Your task to perform on an android device: open wifi settings Image 0: 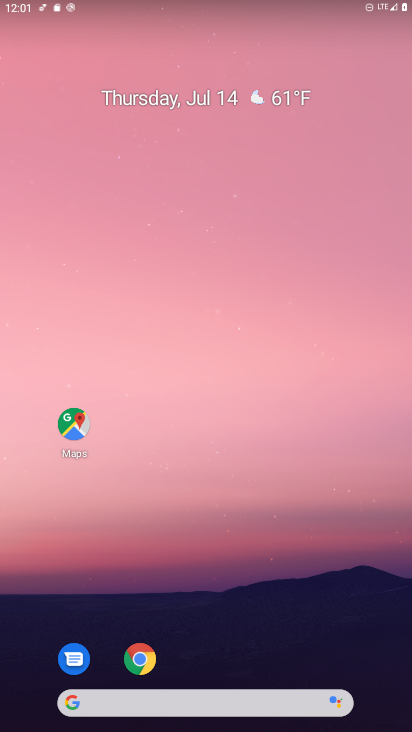
Step 0: drag from (350, 657) to (307, 205)
Your task to perform on an android device: open wifi settings Image 1: 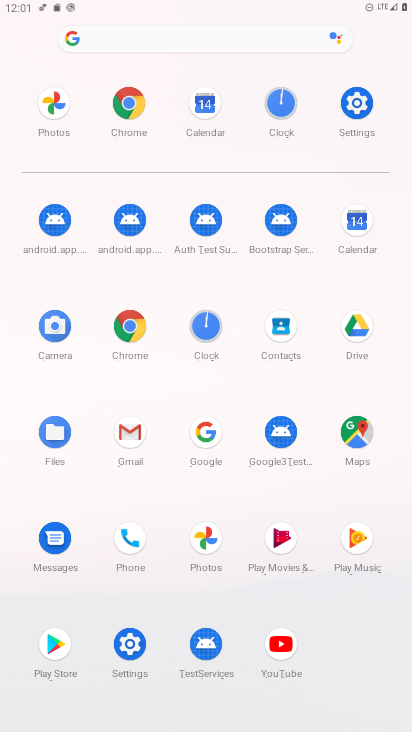
Step 1: click (127, 645)
Your task to perform on an android device: open wifi settings Image 2: 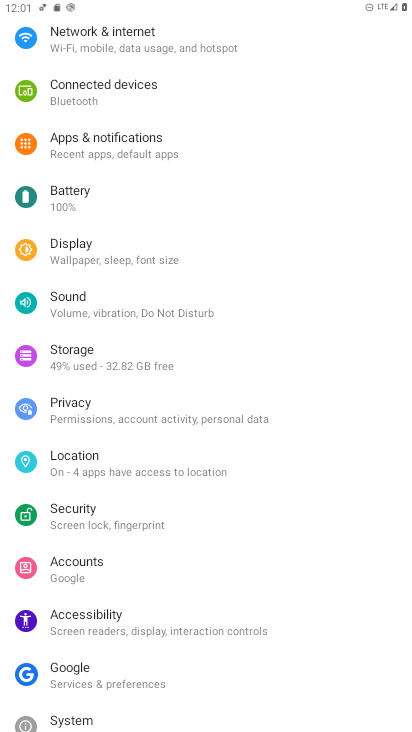
Step 2: drag from (227, 178) to (215, 381)
Your task to perform on an android device: open wifi settings Image 3: 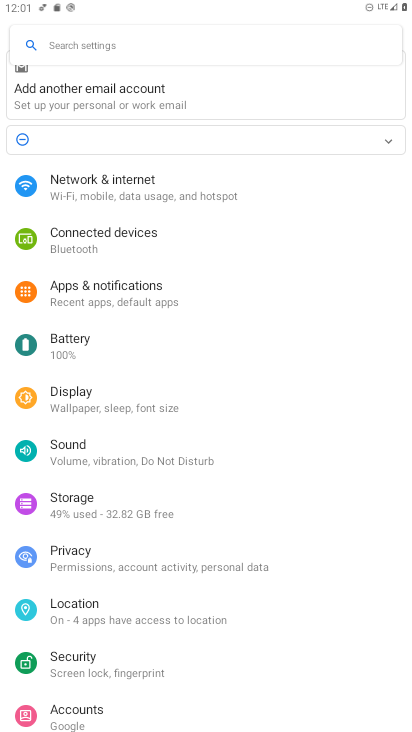
Step 3: click (87, 172)
Your task to perform on an android device: open wifi settings Image 4: 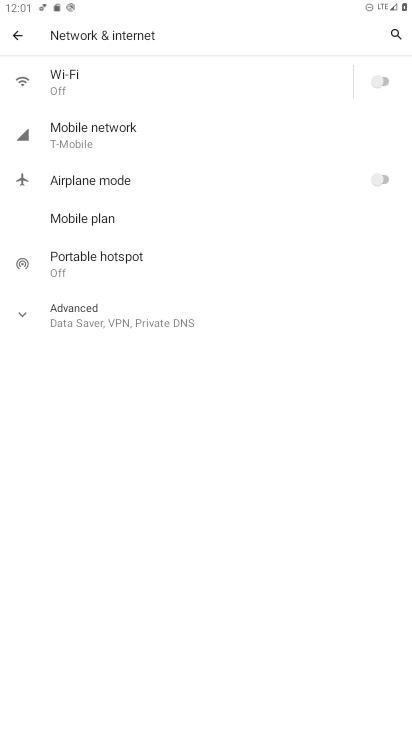
Step 4: click (59, 82)
Your task to perform on an android device: open wifi settings Image 5: 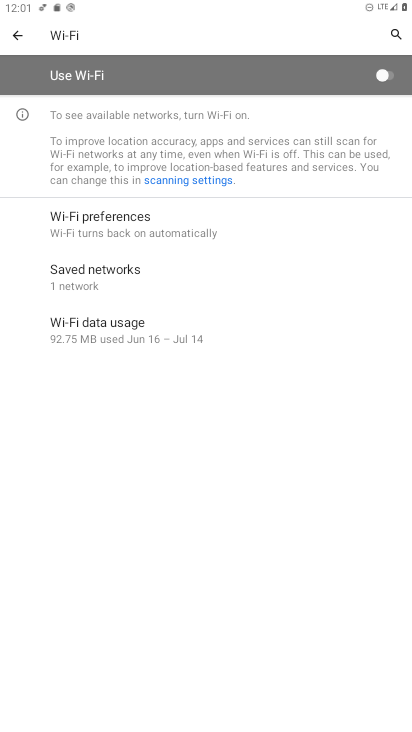
Step 5: task complete